Your task to perform on an android device: Open wifi settings Image 0: 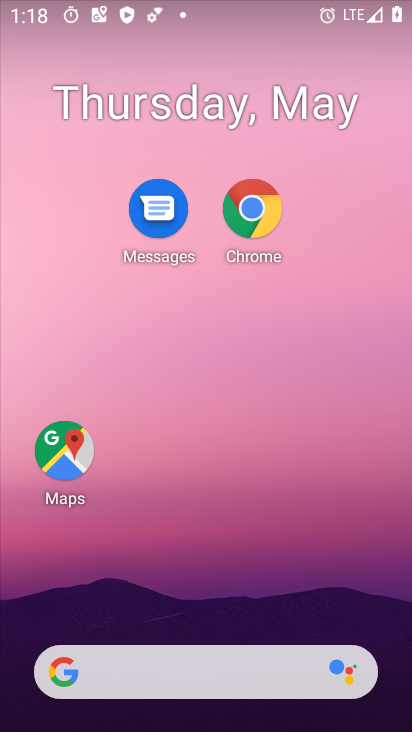
Step 0: drag from (241, 616) to (219, 251)
Your task to perform on an android device: Open wifi settings Image 1: 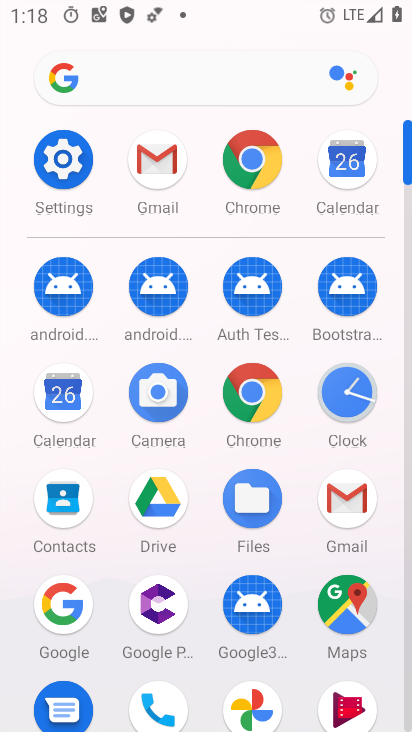
Step 1: click (49, 175)
Your task to perform on an android device: Open wifi settings Image 2: 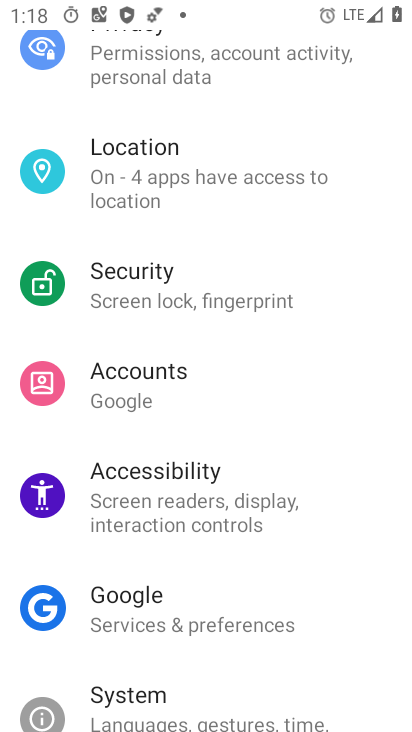
Step 2: drag from (189, 173) to (117, 656)
Your task to perform on an android device: Open wifi settings Image 3: 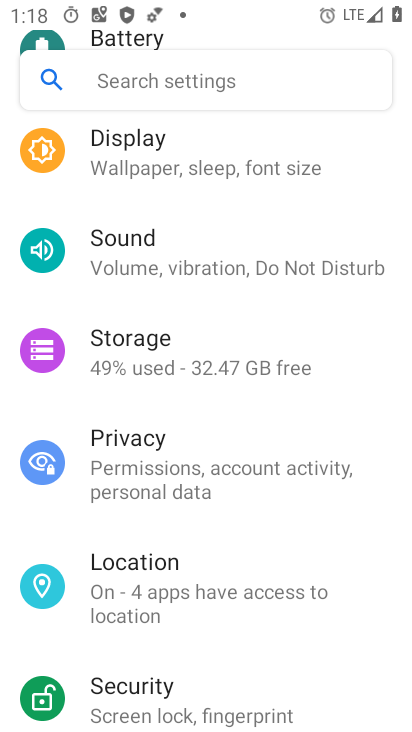
Step 3: drag from (204, 197) to (138, 599)
Your task to perform on an android device: Open wifi settings Image 4: 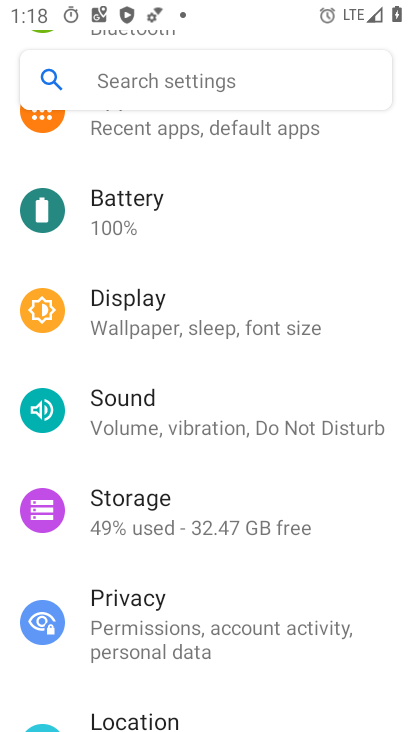
Step 4: drag from (190, 241) to (185, 621)
Your task to perform on an android device: Open wifi settings Image 5: 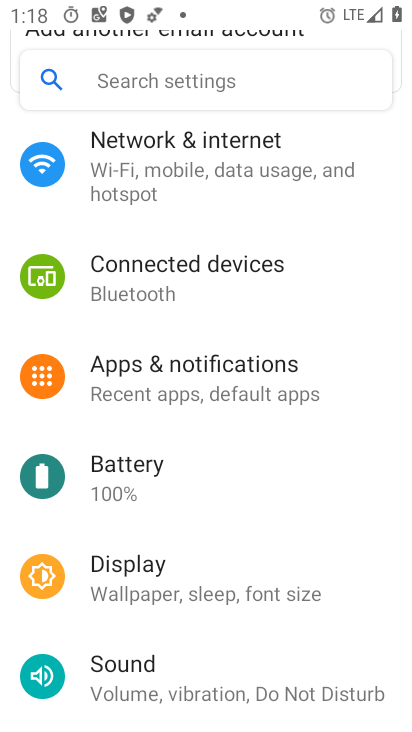
Step 5: click (172, 152)
Your task to perform on an android device: Open wifi settings Image 6: 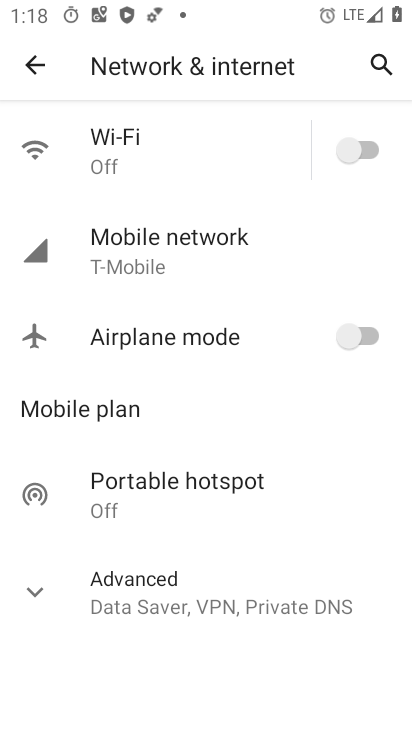
Step 6: click (246, 166)
Your task to perform on an android device: Open wifi settings Image 7: 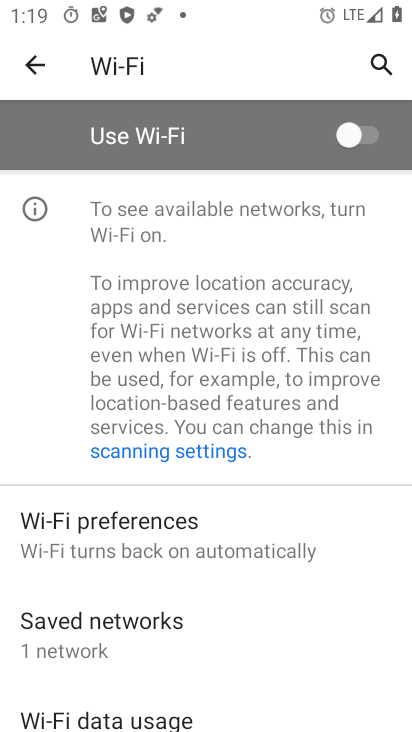
Step 7: task complete